Your task to perform on an android device: Open location settings Image 0: 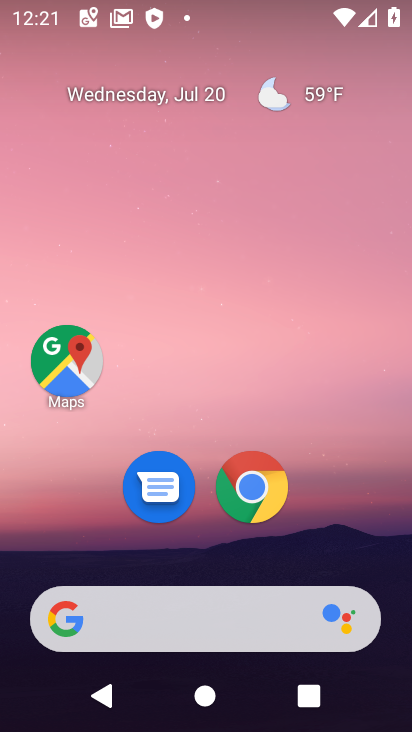
Step 0: drag from (221, 557) to (302, 14)
Your task to perform on an android device: Open location settings Image 1: 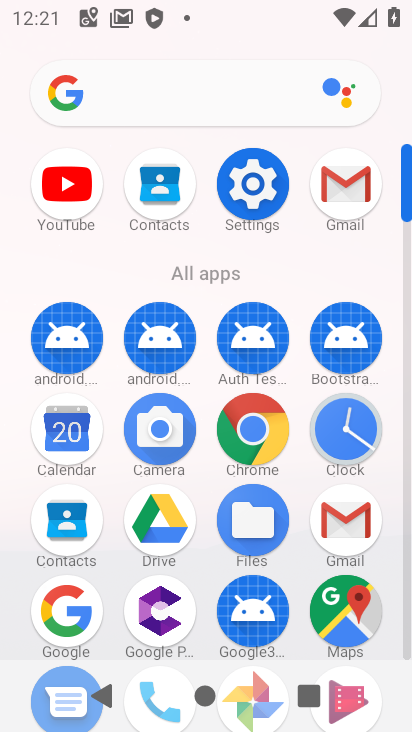
Step 1: click (257, 172)
Your task to perform on an android device: Open location settings Image 2: 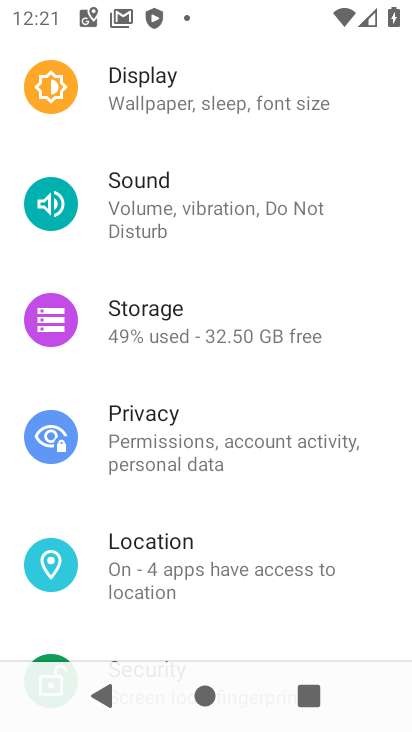
Step 2: click (146, 573)
Your task to perform on an android device: Open location settings Image 3: 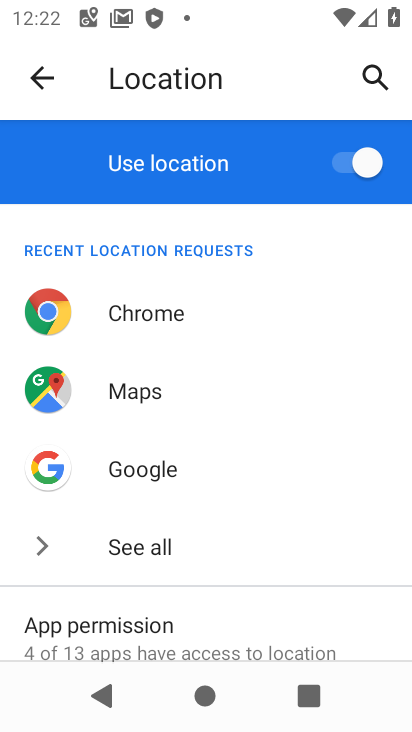
Step 3: task complete